Your task to perform on an android device: Set an alarmfor 5pm Image 0: 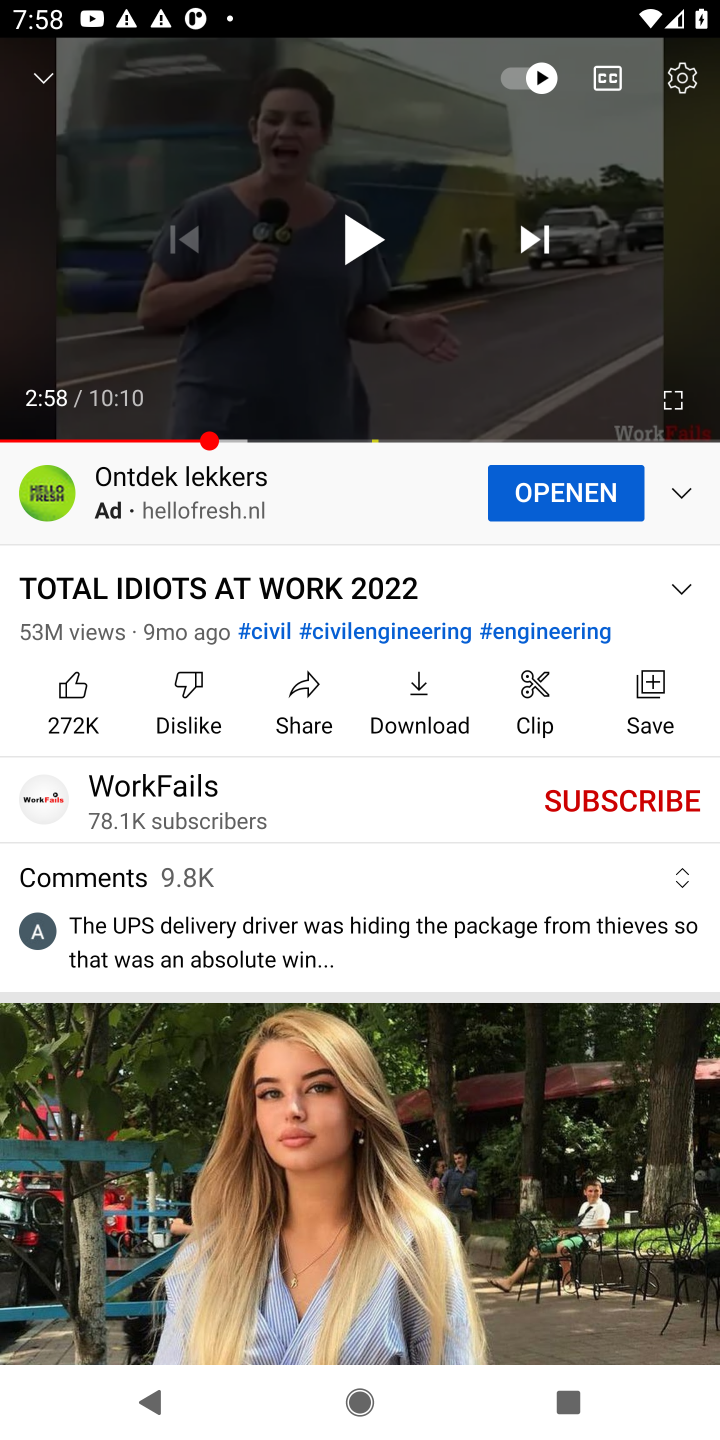
Step 0: press home button
Your task to perform on an android device: Set an alarmfor 5pm Image 1: 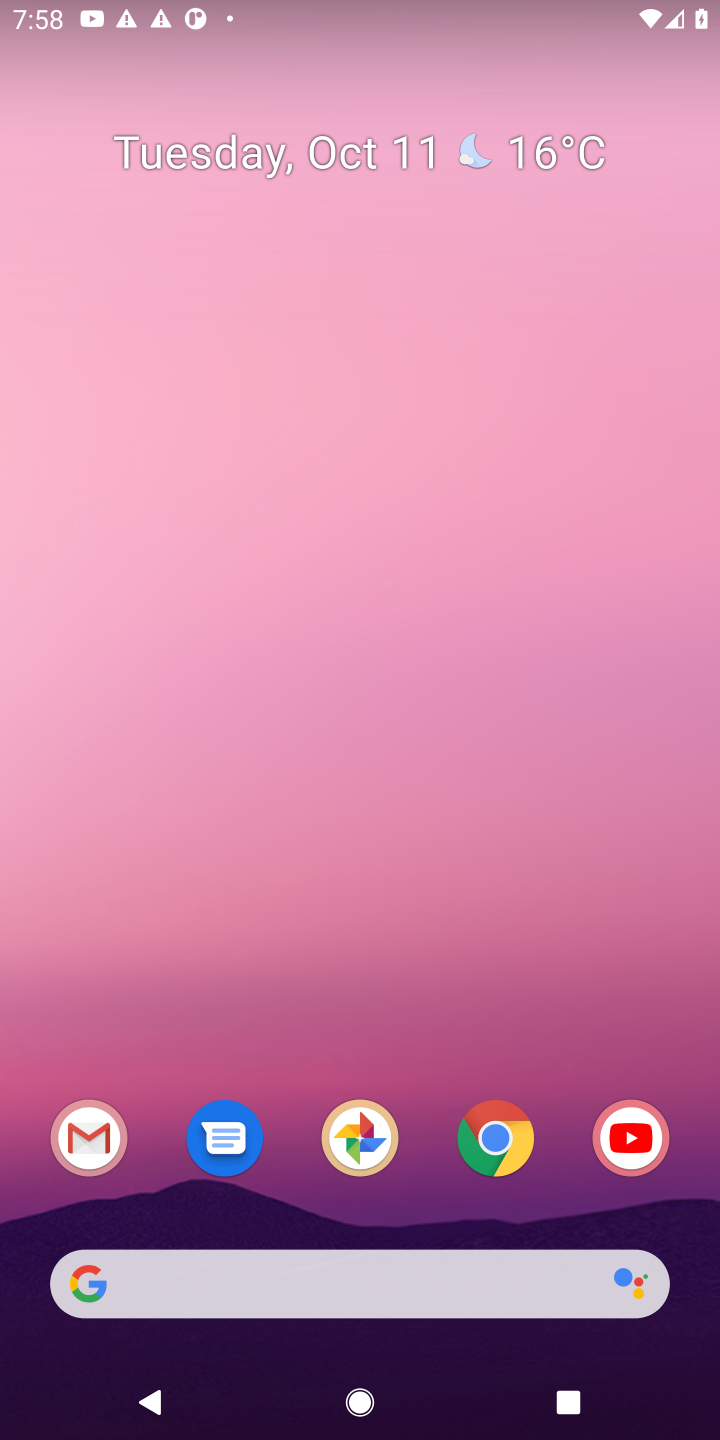
Step 1: drag from (432, 998) to (377, 452)
Your task to perform on an android device: Set an alarmfor 5pm Image 2: 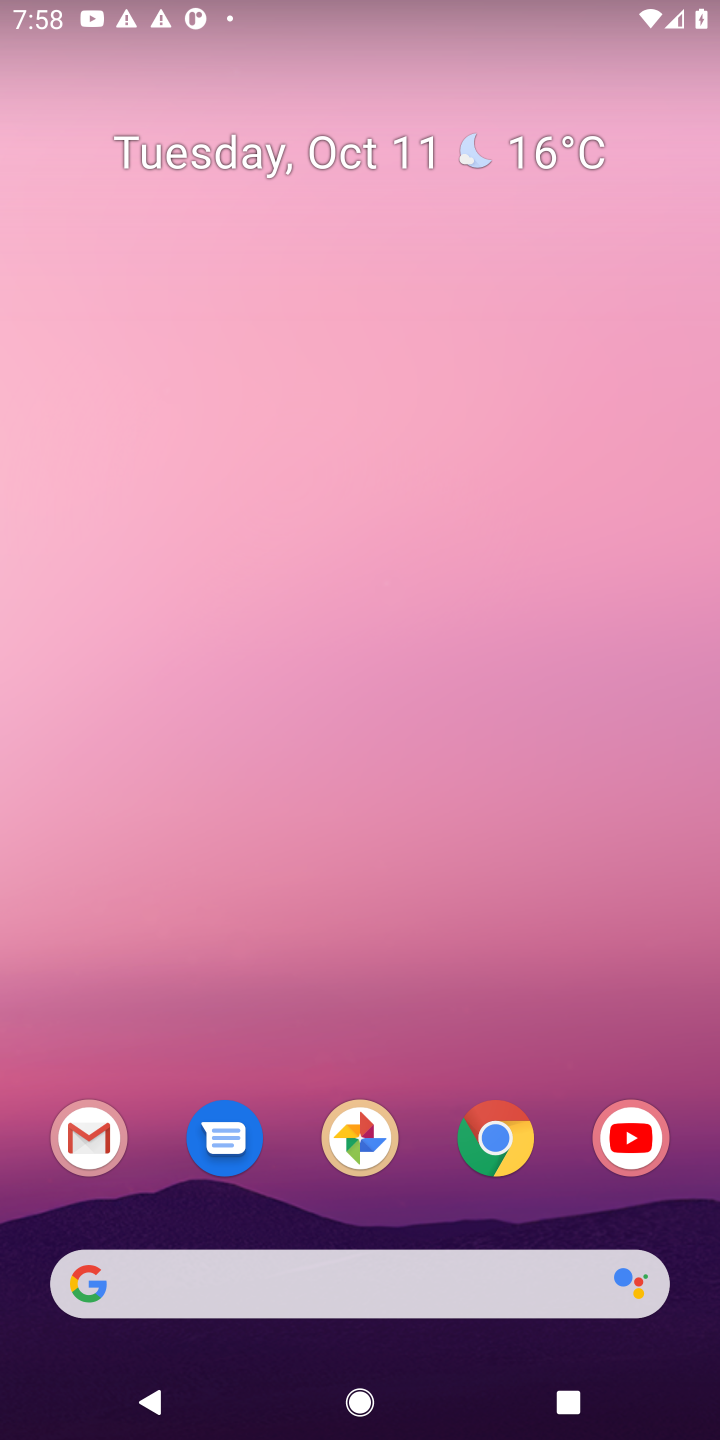
Step 2: drag from (422, 1055) to (349, 570)
Your task to perform on an android device: Set an alarmfor 5pm Image 3: 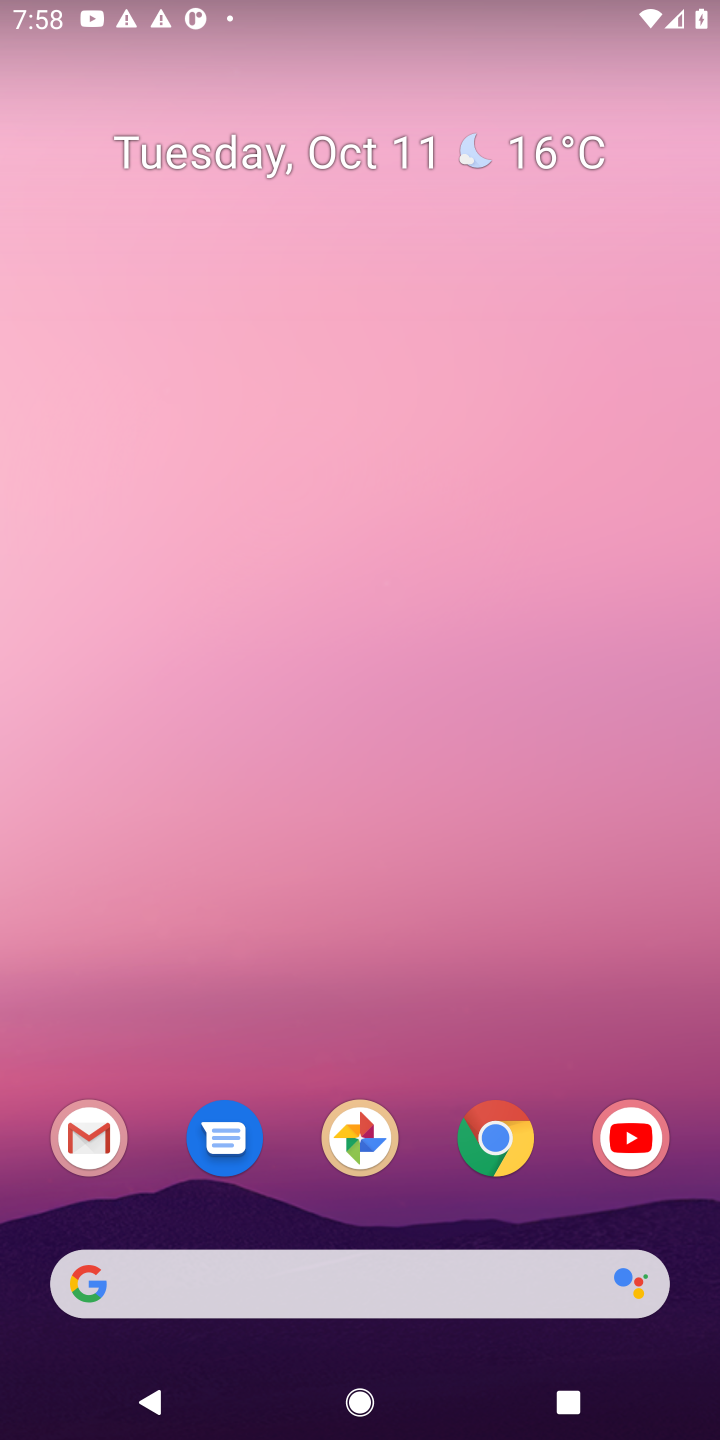
Step 3: drag from (428, 1030) to (389, 170)
Your task to perform on an android device: Set an alarmfor 5pm Image 4: 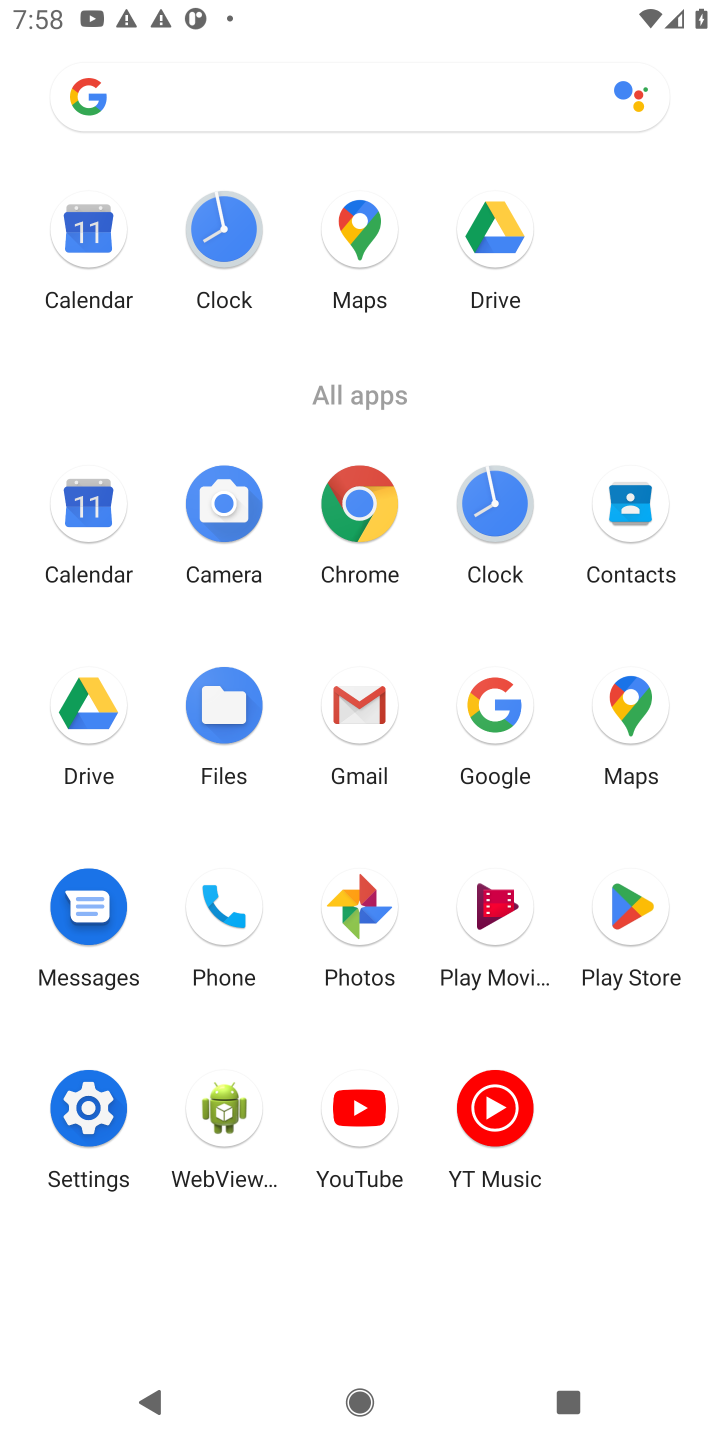
Step 4: click (220, 218)
Your task to perform on an android device: Set an alarmfor 5pm Image 5: 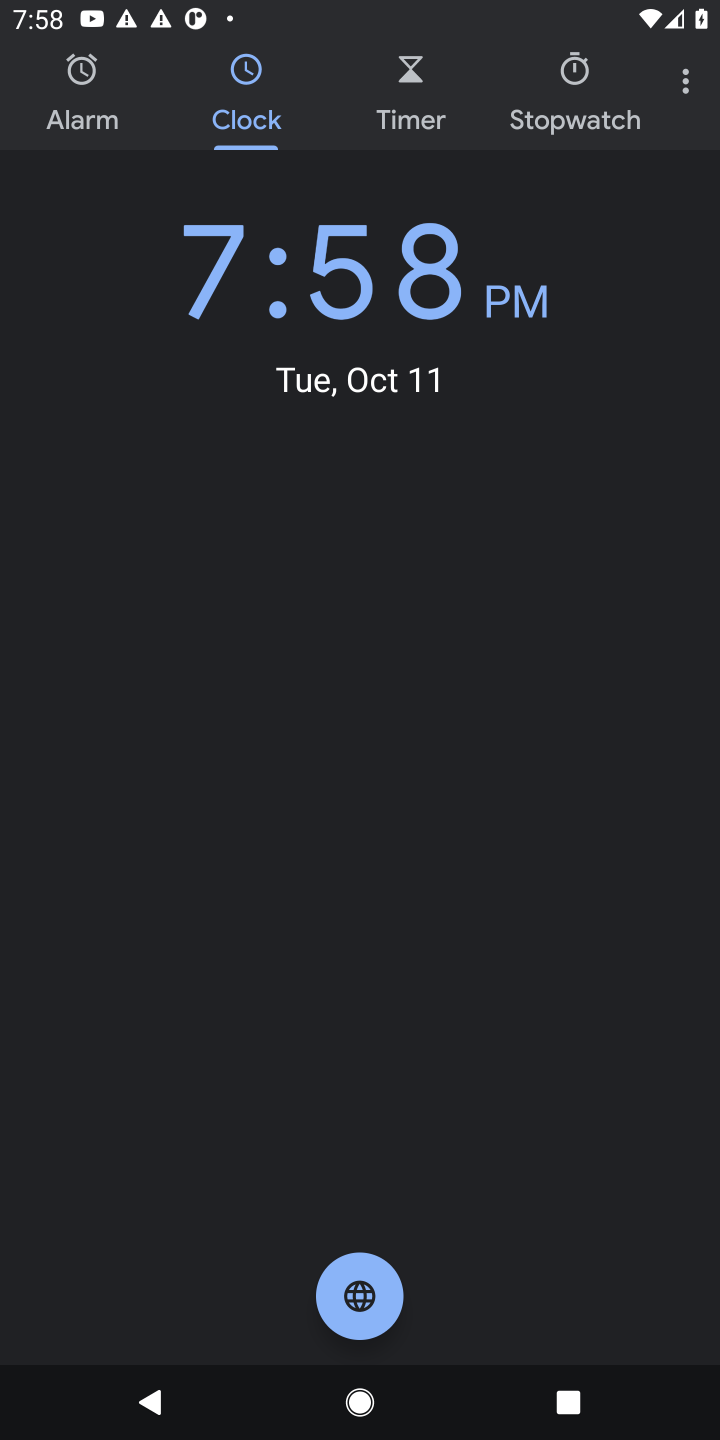
Step 5: click (89, 86)
Your task to perform on an android device: Set an alarmfor 5pm Image 6: 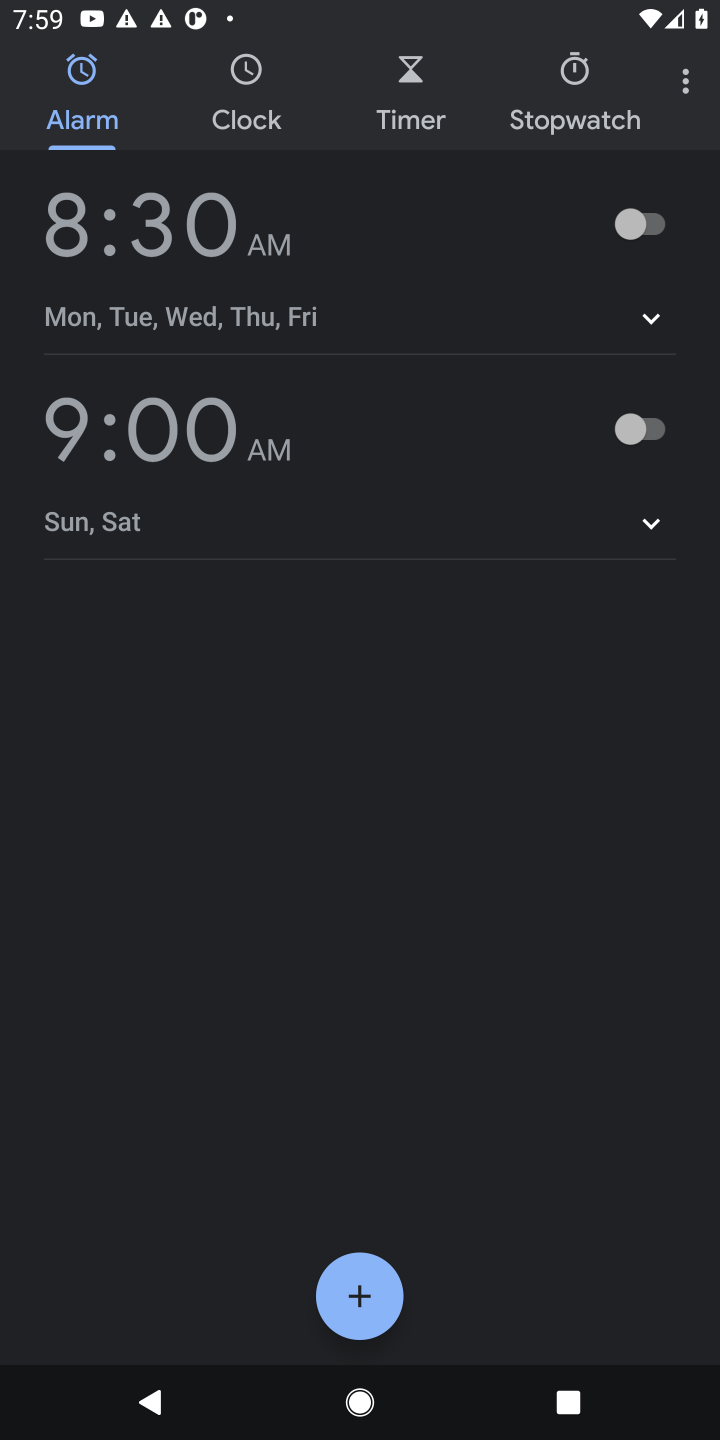
Step 6: click (352, 1295)
Your task to perform on an android device: Set an alarmfor 5pm Image 7: 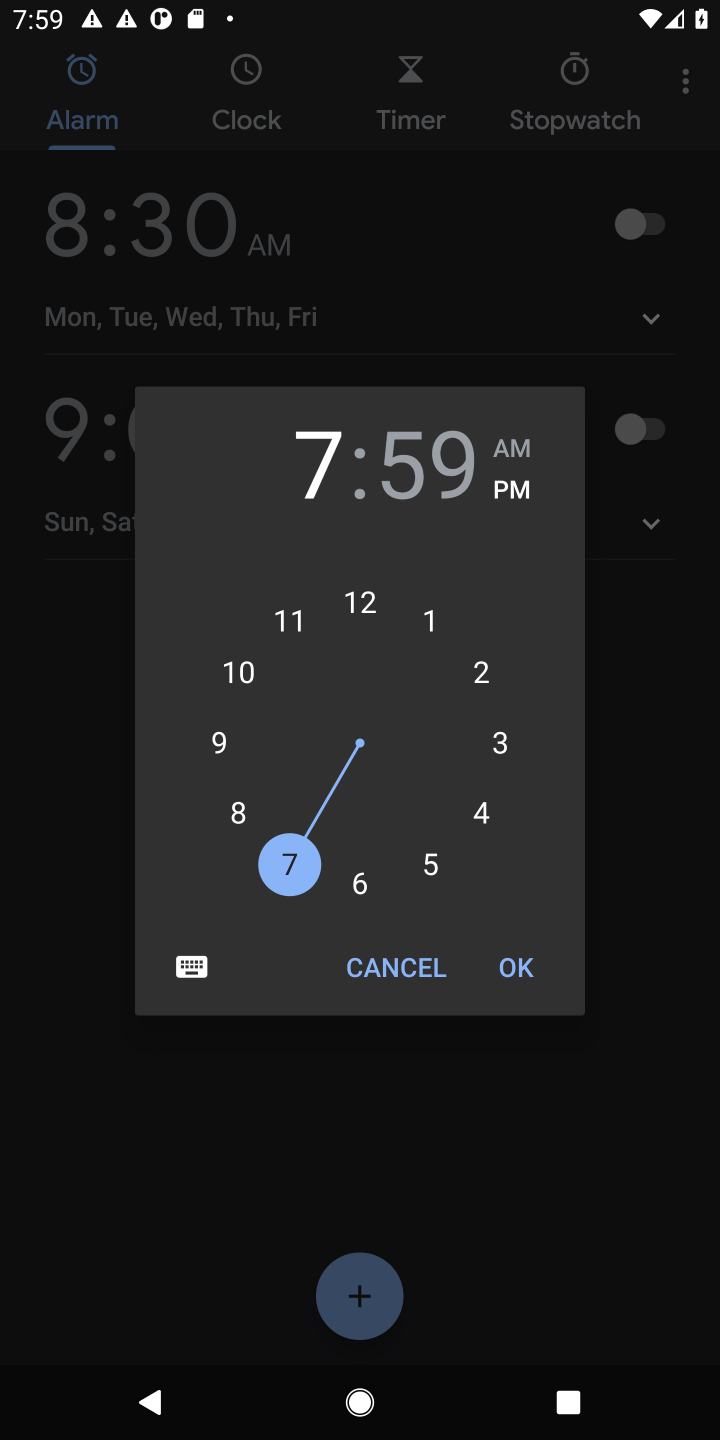
Step 7: click (430, 856)
Your task to perform on an android device: Set an alarmfor 5pm Image 8: 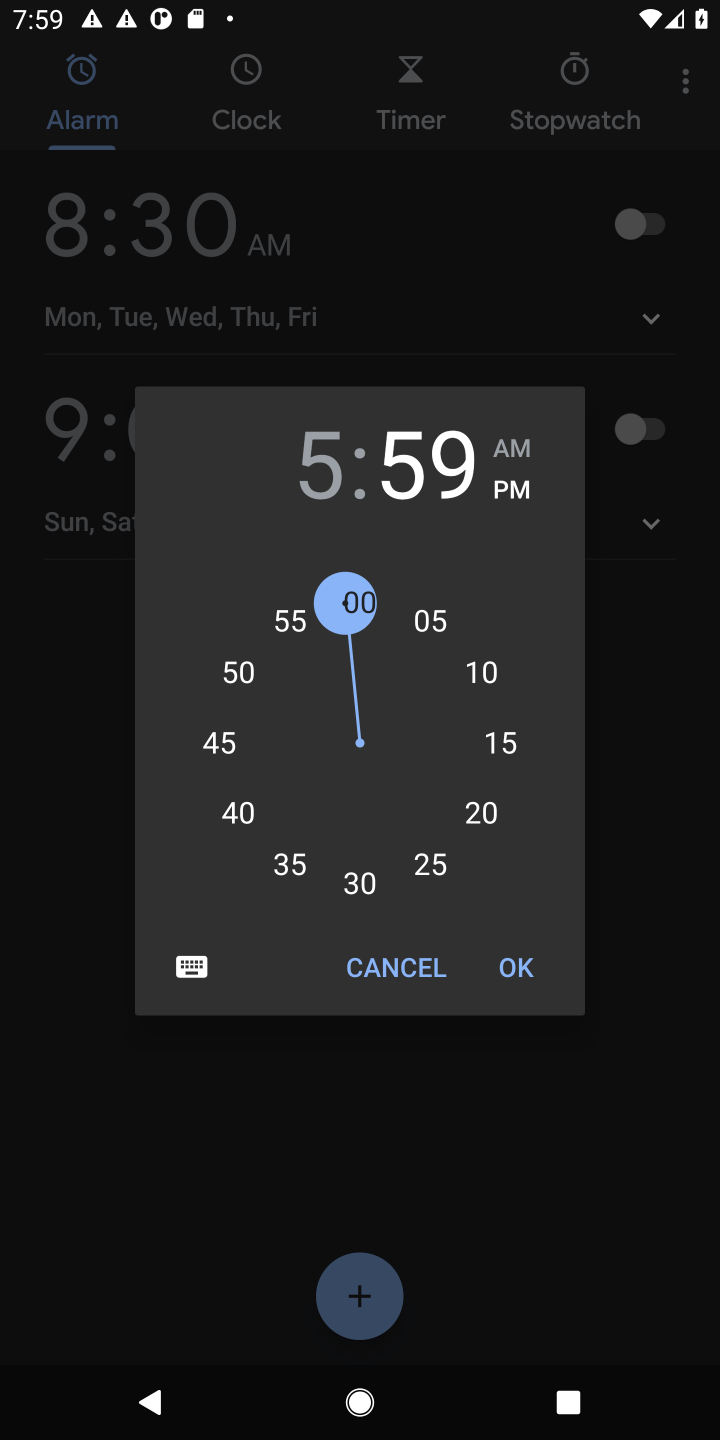
Step 8: click (354, 609)
Your task to perform on an android device: Set an alarmfor 5pm Image 9: 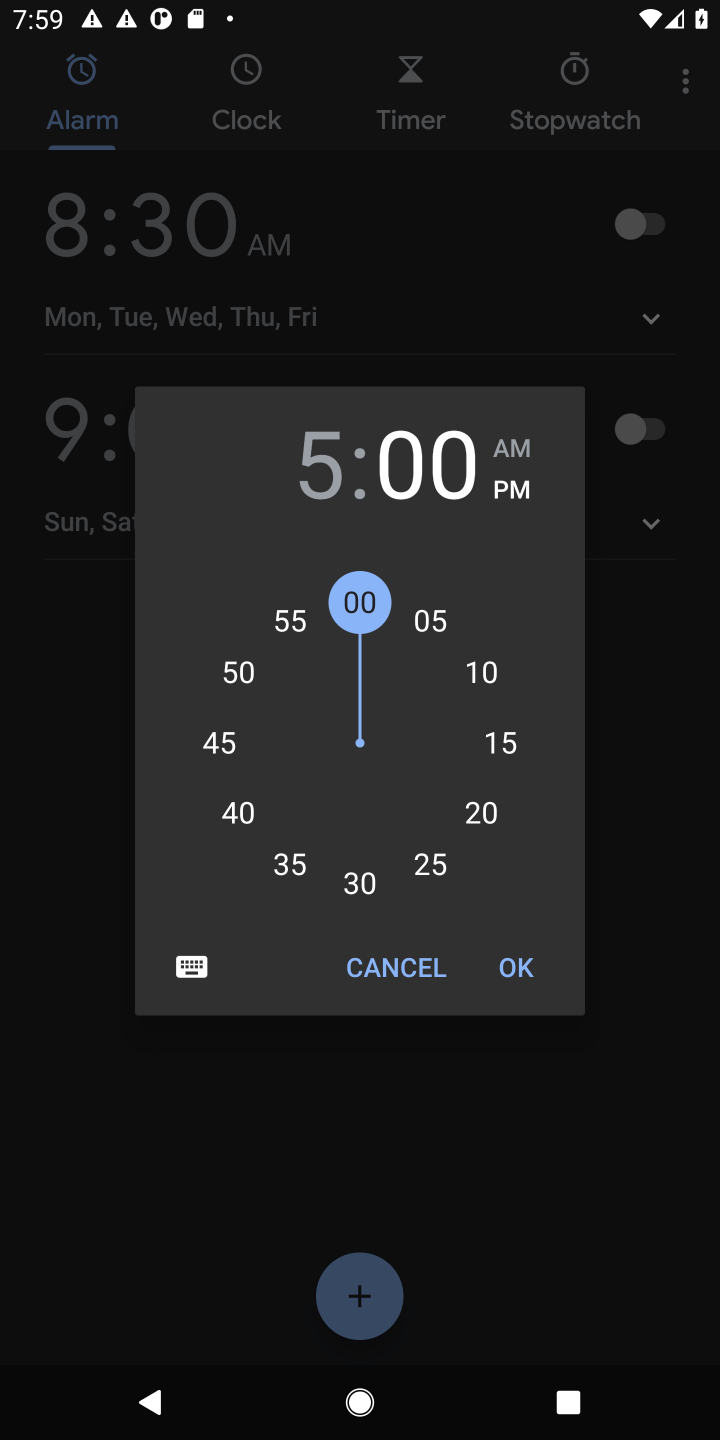
Step 9: click (505, 957)
Your task to perform on an android device: Set an alarmfor 5pm Image 10: 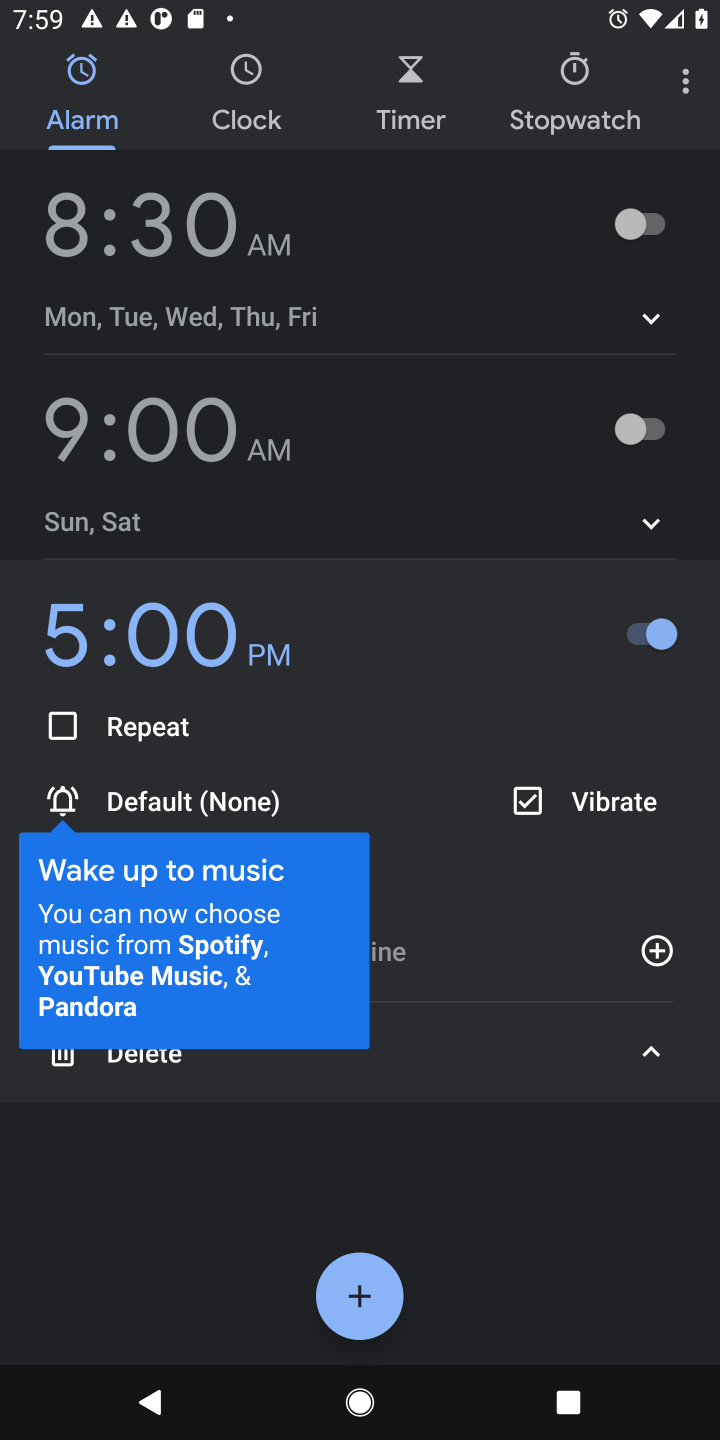
Step 10: task complete